Your task to perform on an android device: Do I have any events today? Image 0: 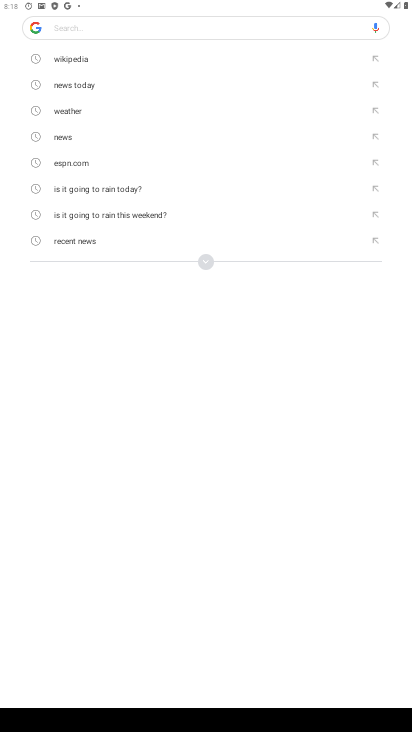
Step 0: drag from (209, 457) to (296, 137)
Your task to perform on an android device: Do I have any events today? Image 1: 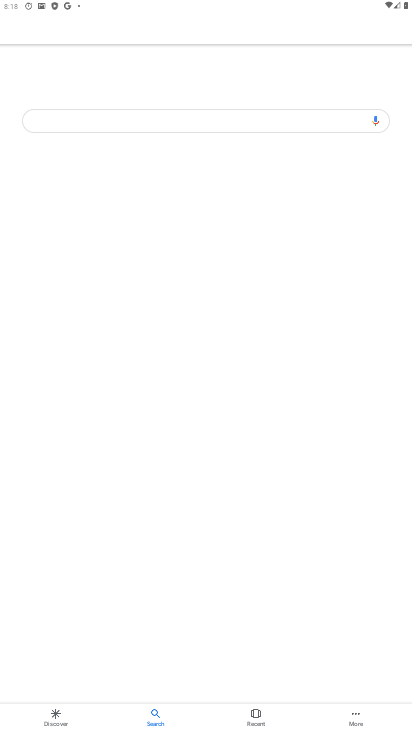
Step 1: drag from (306, 570) to (388, 125)
Your task to perform on an android device: Do I have any events today? Image 2: 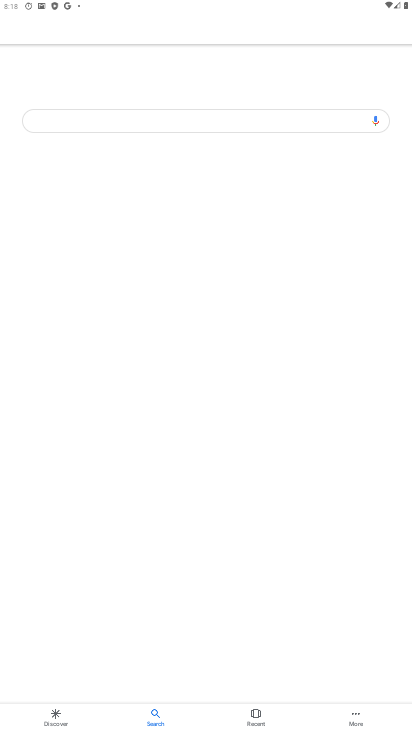
Step 2: drag from (241, 399) to (349, 164)
Your task to perform on an android device: Do I have any events today? Image 3: 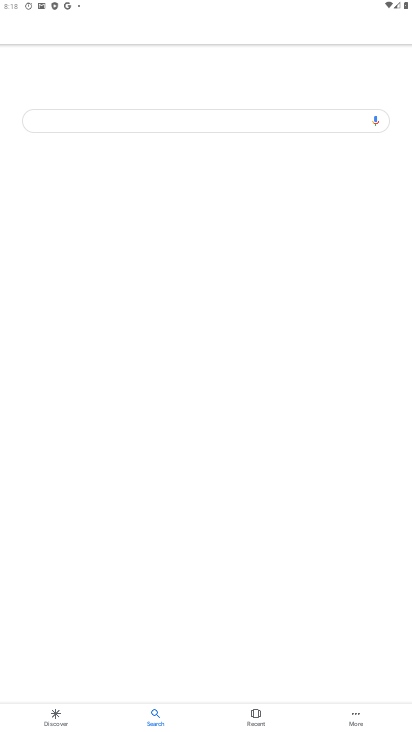
Step 3: drag from (182, 488) to (238, 293)
Your task to perform on an android device: Do I have any events today? Image 4: 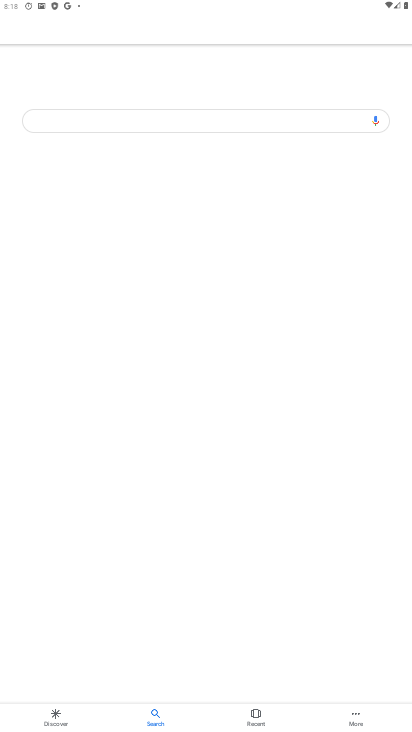
Step 4: drag from (299, 511) to (299, 180)
Your task to perform on an android device: Do I have any events today? Image 5: 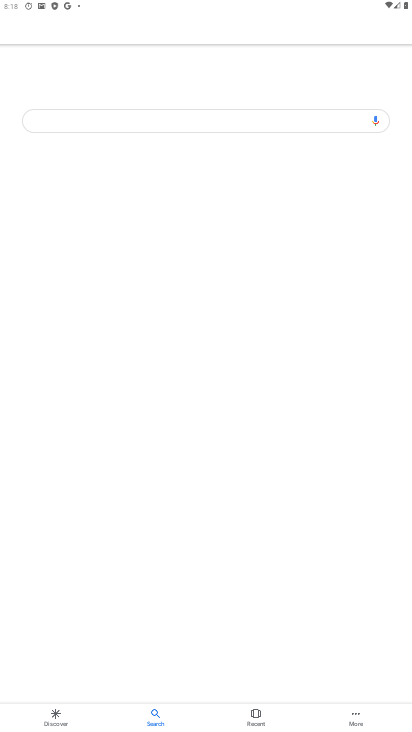
Step 5: press home button
Your task to perform on an android device: Do I have any events today? Image 6: 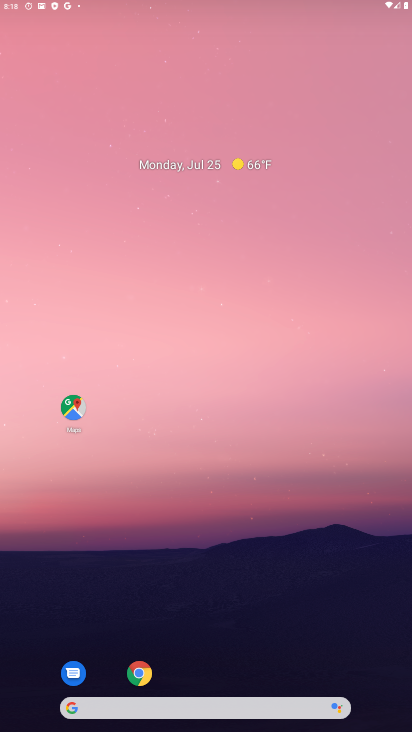
Step 6: drag from (226, 534) to (322, 121)
Your task to perform on an android device: Do I have any events today? Image 7: 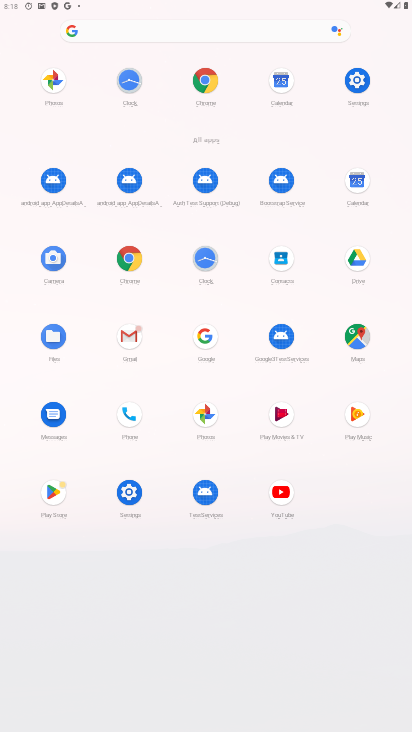
Step 7: click (357, 184)
Your task to perform on an android device: Do I have any events today? Image 8: 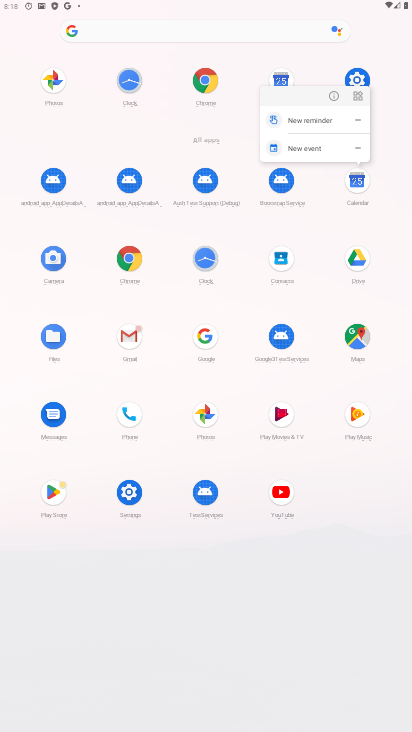
Step 8: click (335, 96)
Your task to perform on an android device: Do I have any events today? Image 9: 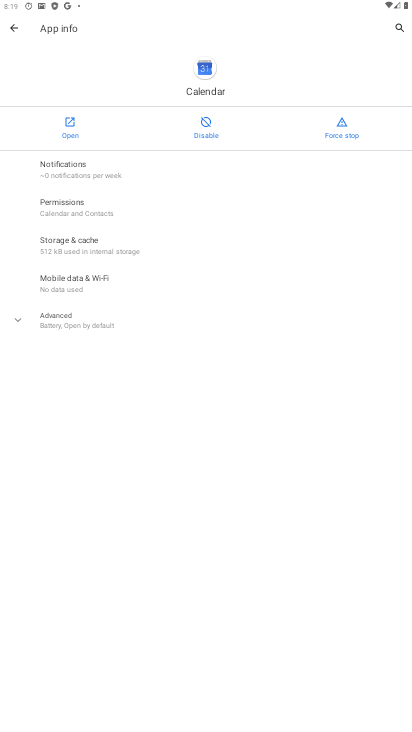
Step 9: click (81, 123)
Your task to perform on an android device: Do I have any events today? Image 10: 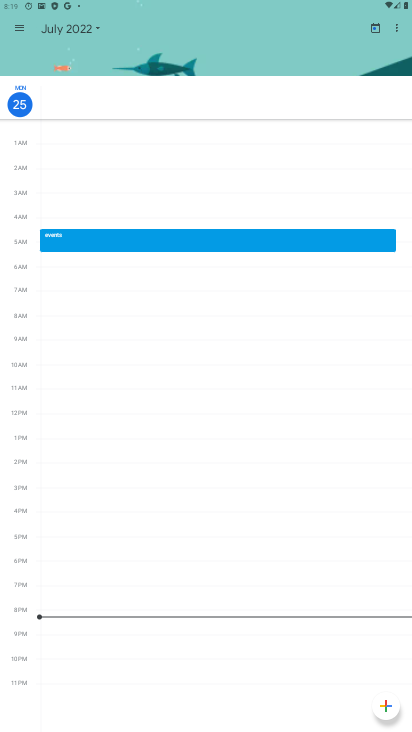
Step 10: click (380, 25)
Your task to perform on an android device: Do I have any events today? Image 11: 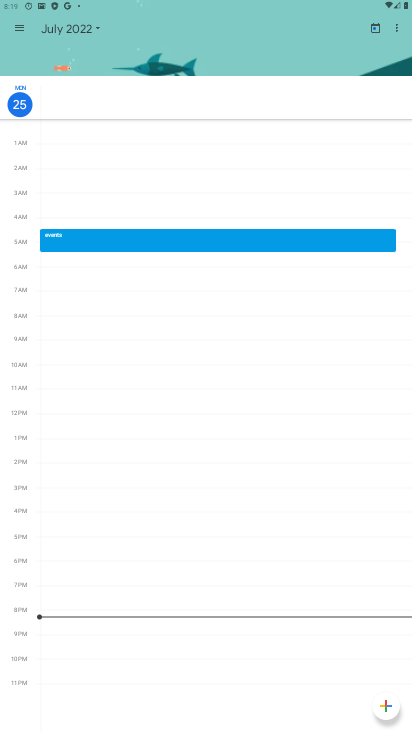
Step 11: click (376, 33)
Your task to perform on an android device: Do I have any events today? Image 12: 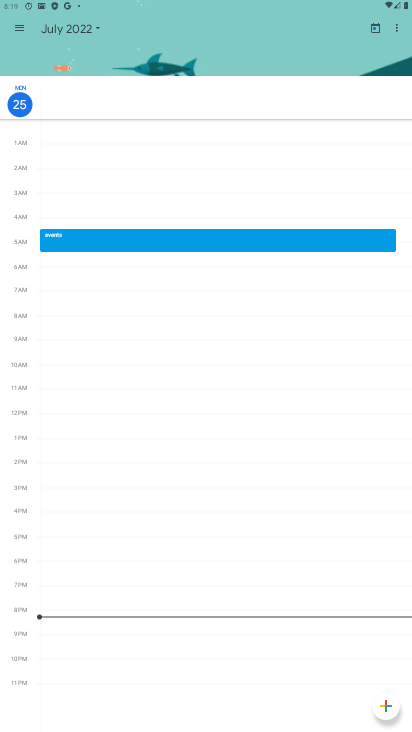
Step 12: task complete